Your task to perform on an android device: check google app version Image 0: 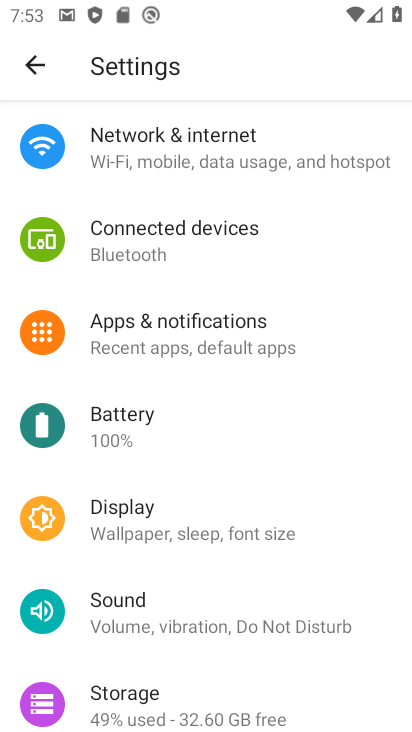
Step 0: press home button
Your task to perform on an android device: check google app version Image 1: 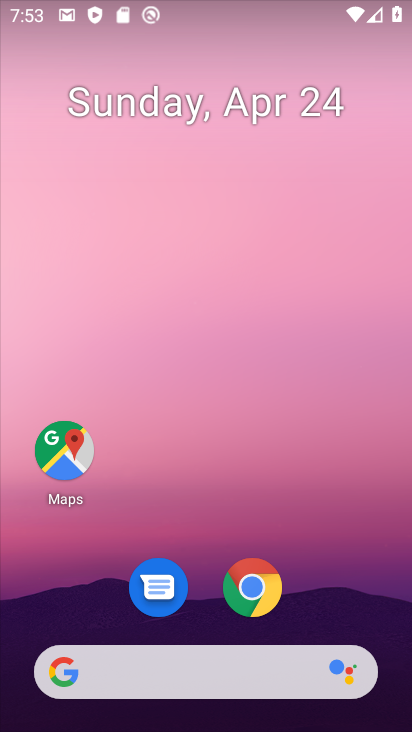
Step 1: drag from (360, 573) to (350, 152)
Your task to perform on an android device: check google app version Image 2: 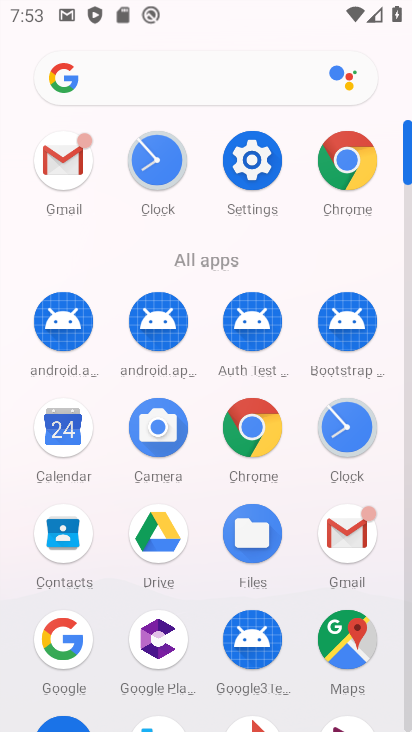
Step 2: click (81, 646)
Your task to perform on an android device: check google app version Image 3: 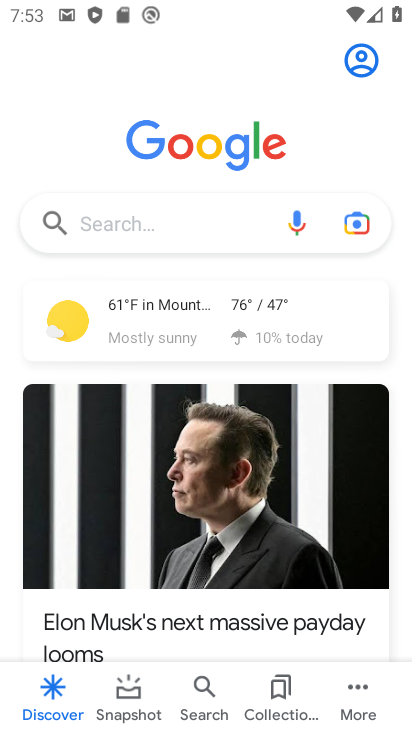
Step 3: click (356, 681)
Your task to perform on an android device: check google app version Image 4: 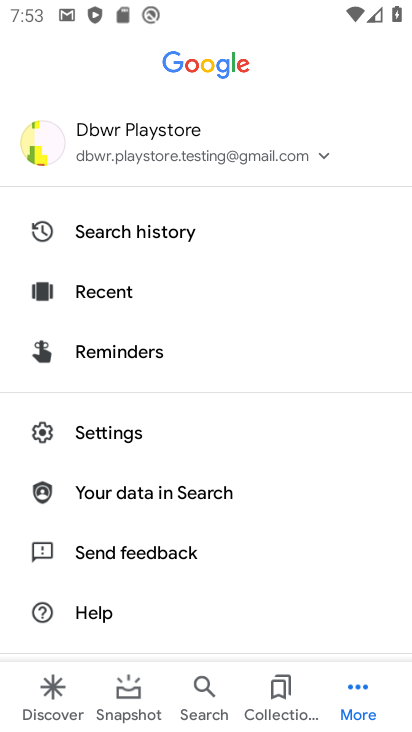
Step 4: click (115, 435)
Your task to perform on an android device: check google app version Image 5: 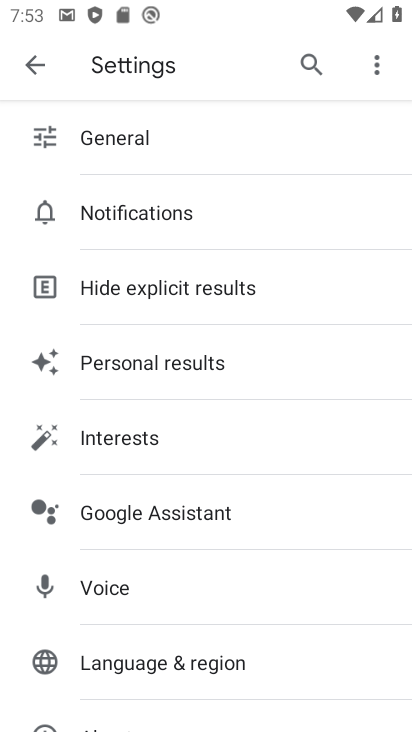
Step 5: drag from (265, 622) to (269, 448)
Your task to perform on an android device: check google app version Image 6: 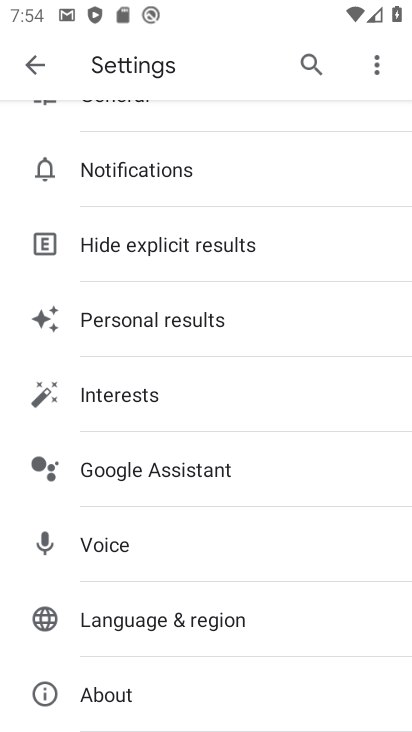
Step 6: click (150, 694)
Your task to perform on an android device: check google app version Image 7: 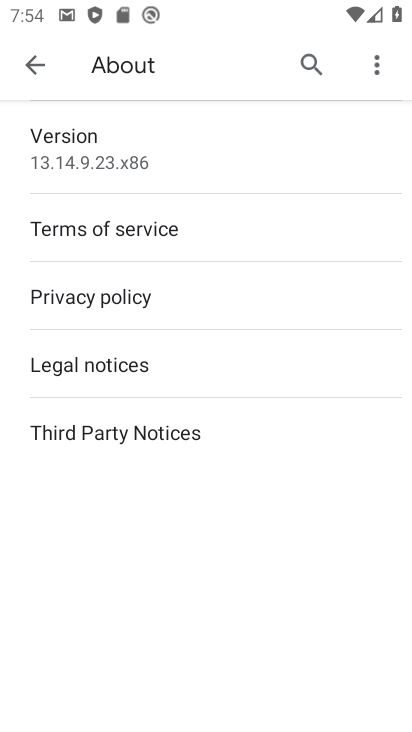
Step 7: task complete